Your task to perform on an android device: Go to Amazon Image 0: 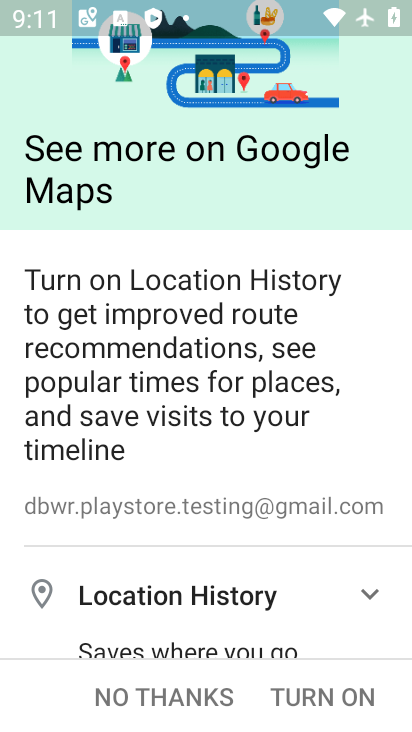
Step 0: press home button
Your task to perform on an android device: Go to Amazon Image 1: 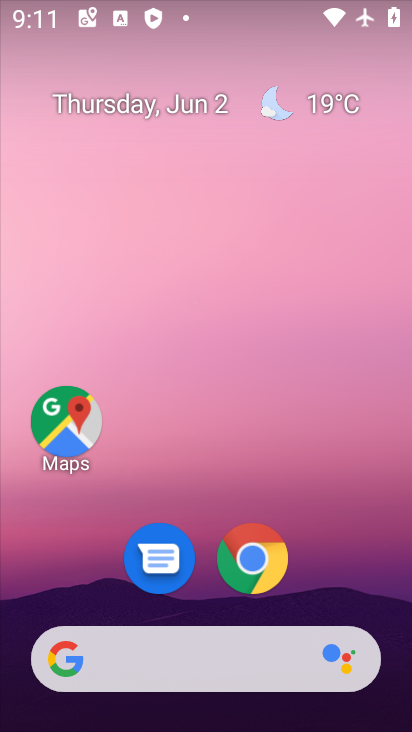
Step 1: click (252, 558)
Your task to perform on an android device: Go to Amazon Image 2: 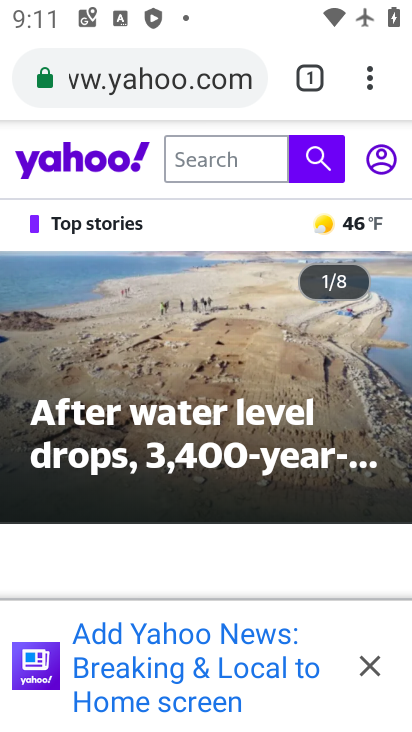
Step 2: click (253, 76)
Your task to perform on an android device: Go to Amazon Image 3: 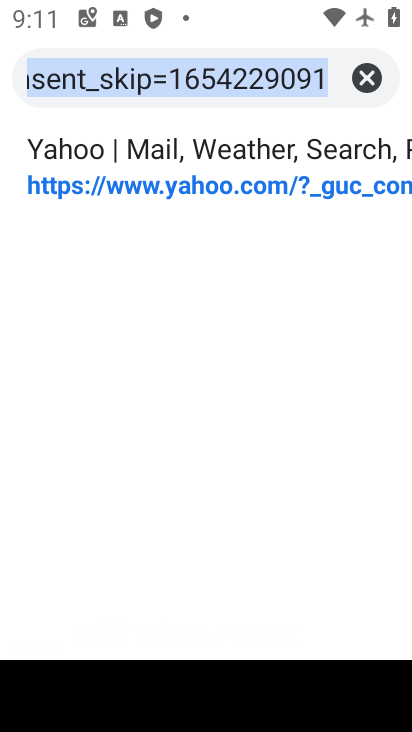
Step 3: click (375, 76)
Your task to perform on an android device: Go to Amazon Image 4: 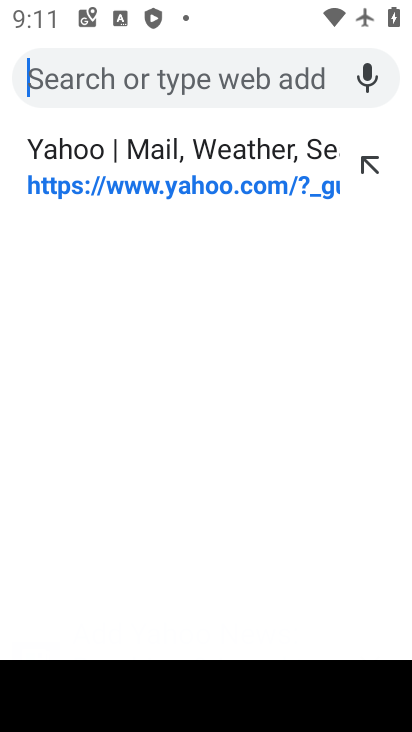
Step 4: type "amazon"
Your task to perform on an android device: Go to Amazon Image 5: 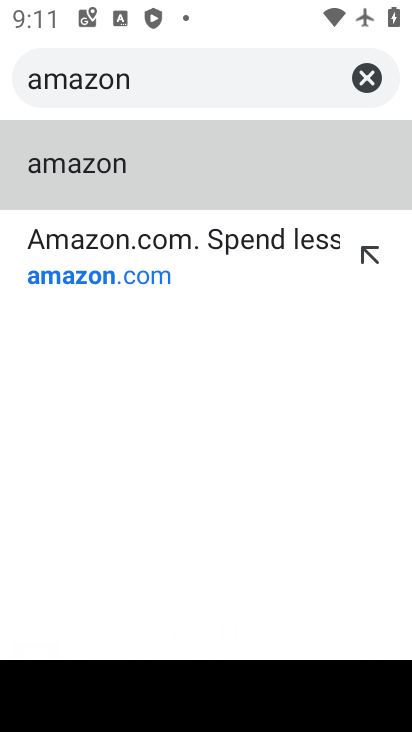
Step 5: click (76, 153)
Your task to perform on an android device: Go to Amazon Image 6: 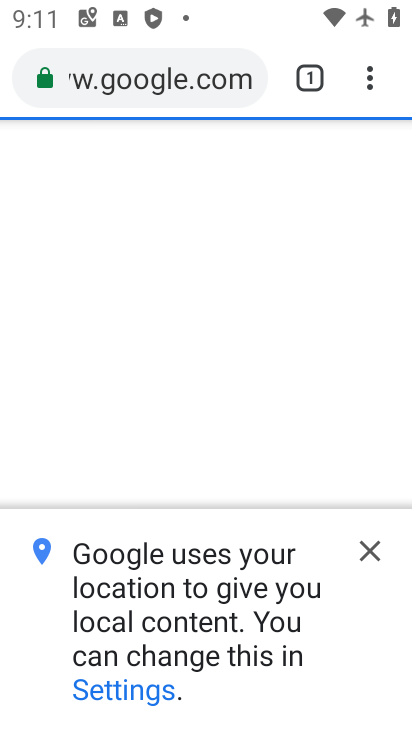
Step 6: click (366, 550)
Your task to perform on an android device: Go to Amazon Image 7: 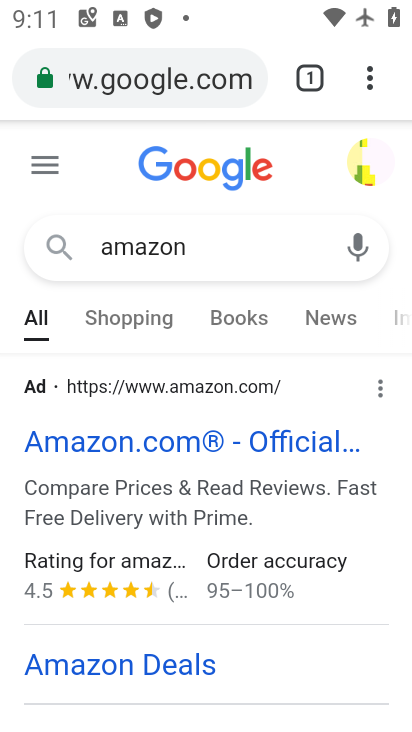
Step 7: click (103, 440)
Your task to perform on an android device: Go to Amazon Image 8: 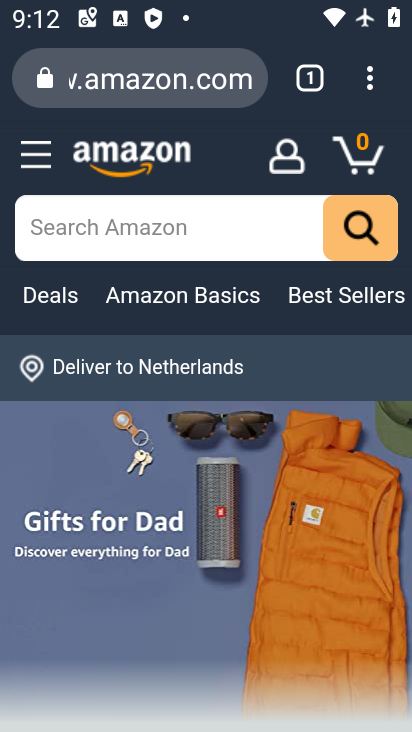
Step 8: task complete